Your task to perform on an android device: manage bookmarks in the chrome app Image 0: 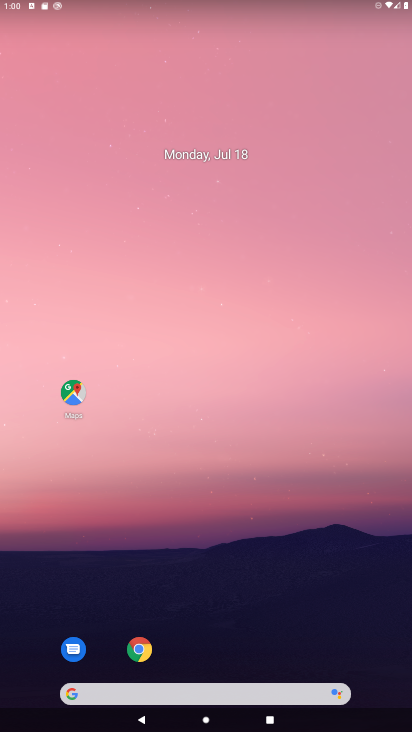
Step 0: click (138, 652)
Your task to perform on an android device: manage bookmarks in the chrome app Image 1: 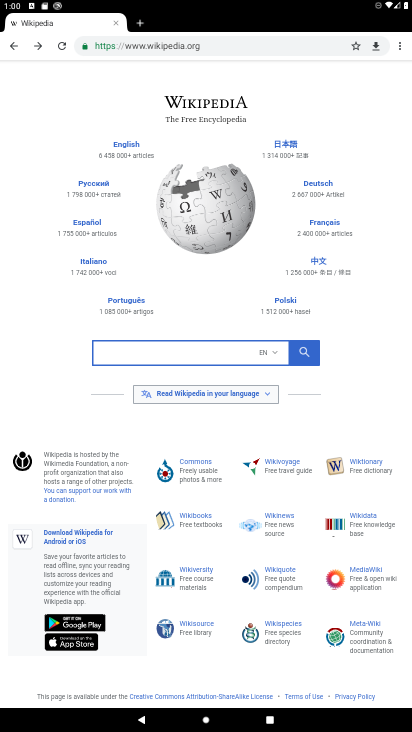
Step 1: click (401, 47)
Your task to perform on an android device: manage bookmarks in the chrome app Image 2: 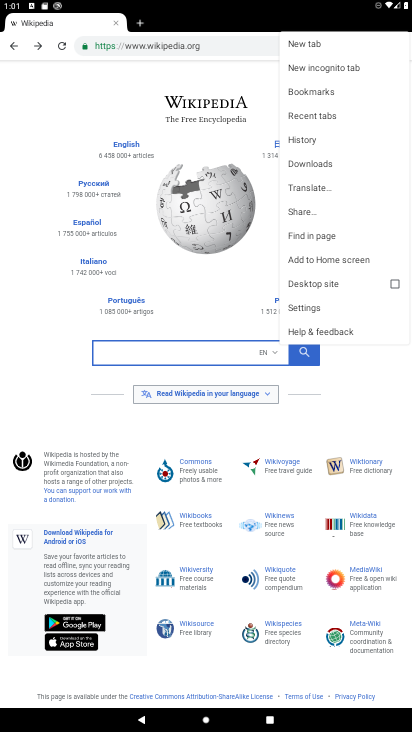
Step 2: click (309, 87)
Your task to perform on an android device: manage bookmarks in the chrome app Image 3: 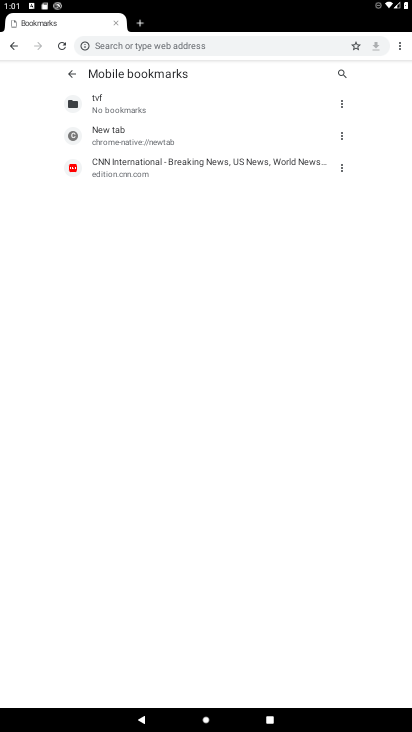
Step 3: click (101, 163)
Your task to perform on an android device: manage bookmarks in the chrome app Image 4: 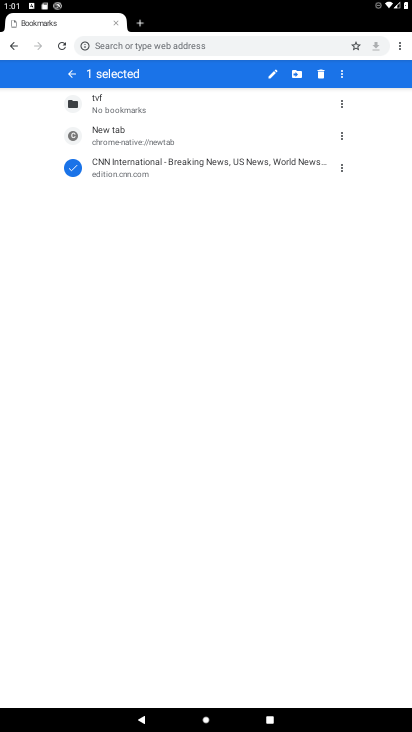
Step 4: click (125, 165)
Your task to perform on an android device: manage bookmarks in the chrome app Image 5: 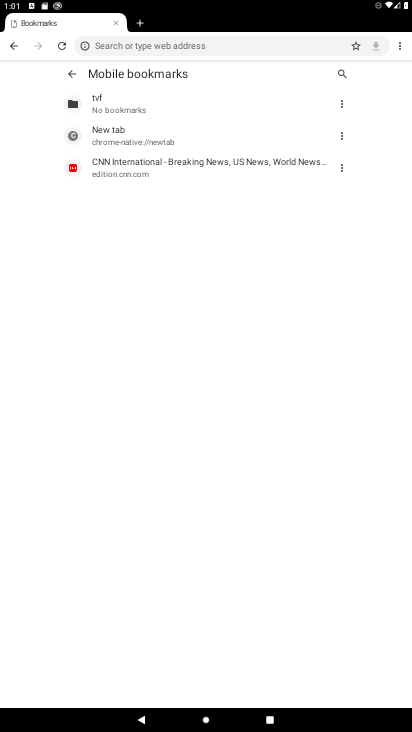
Step 5: click (124, 169)
Your task to perform on an android device: manage bookmarks in the chrome app Image 6: 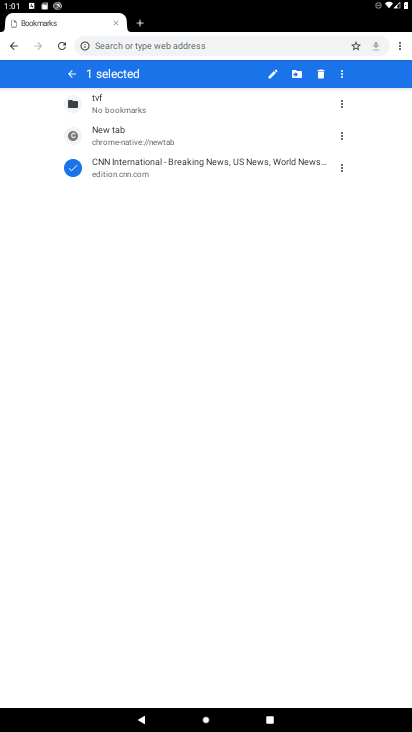
Step 6: click (295, 76)
Your task to perform on an android device: manage bookmarks in the chrome app Image 7: 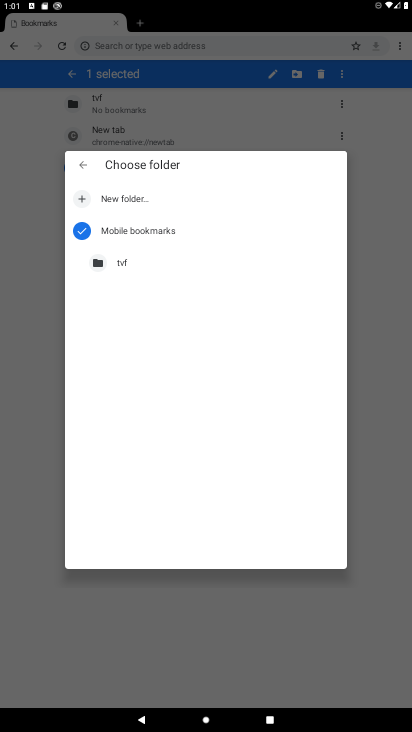
Step 7: click (83, 197)
Your task to perform on an android device: manage bookmarks in the chrome app Image 8: 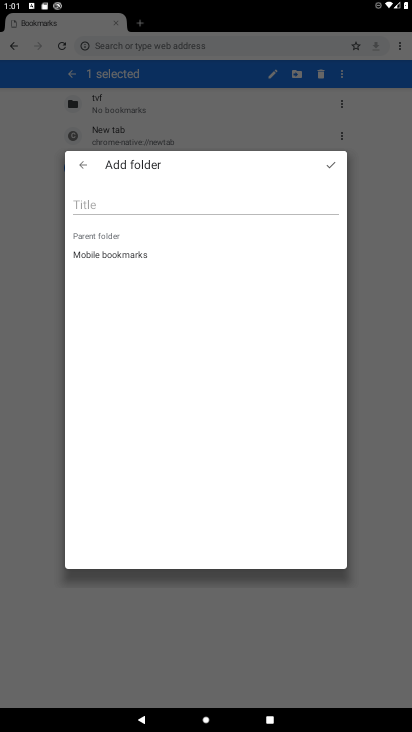
Step 8: type "iuytg"
Your task to perform on an android device: manage bookmarks in the chrome app Image 9: 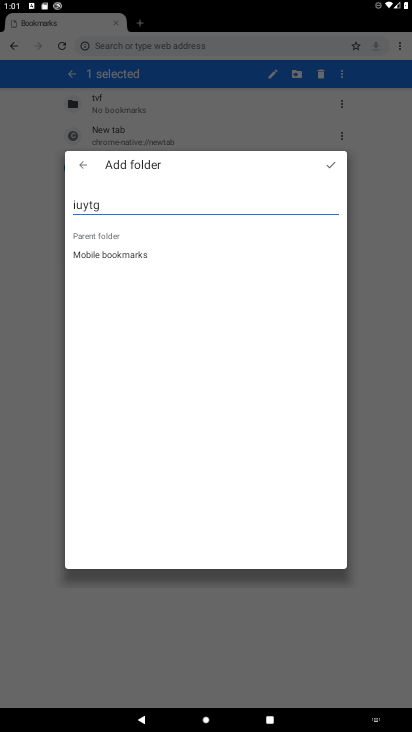
Step 9: click (330, 160)
Your task to perform on an android device: manage bookmarks in the chrome app Image 10: 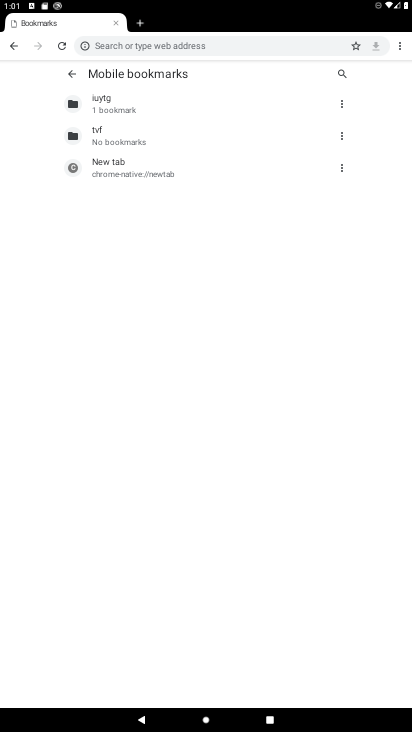
Step 10: task complete